Your task to perform on an android device: Open Google Maps Image 0: 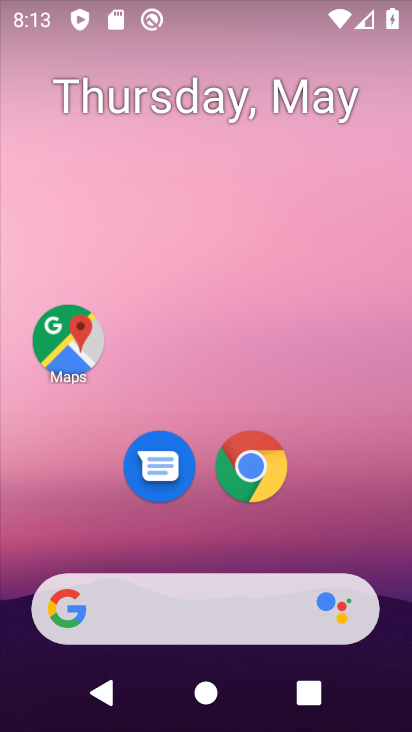
Step 0: click (75, 343)
Your task to perform on an android device: Open Google Maps Image 1: 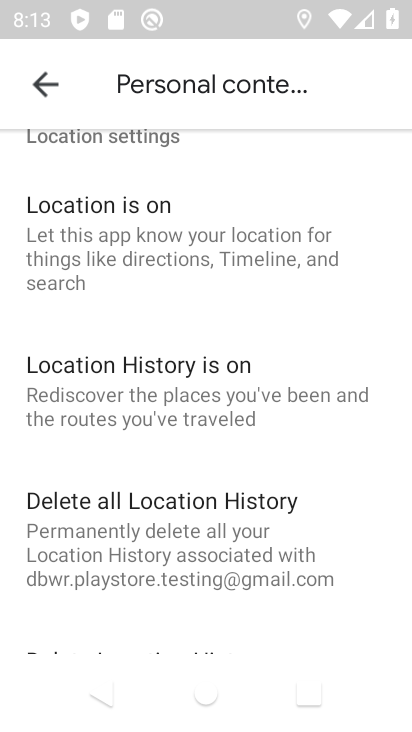
Step 1: click (37, 84)
Your task to perform on an android device: Open Google Maps Image 2: 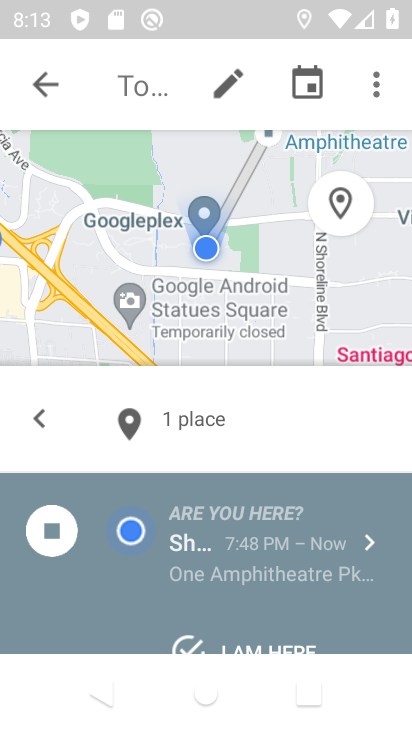
Step 2: click (37, 84)
Your task to perform on an android device: Open Google Maps Image 3: 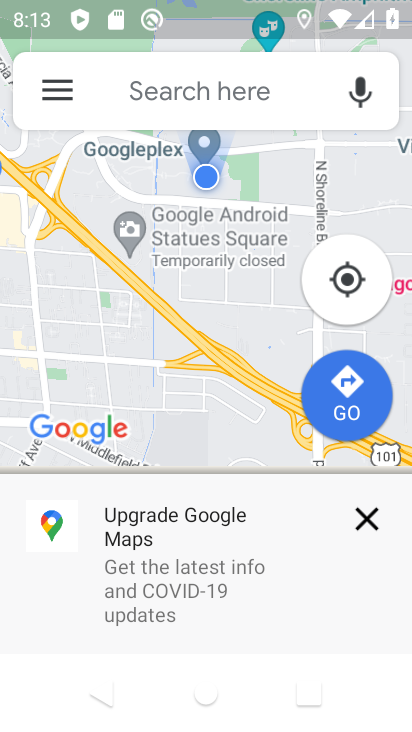
Step 3: task complete